Your task to perform on an android device: See recent photos Image 0: 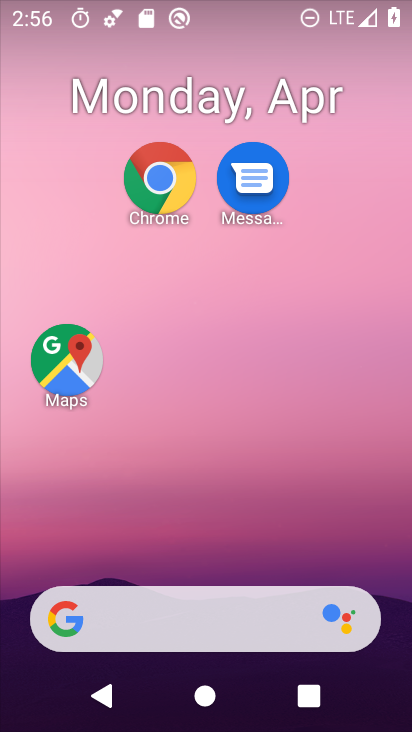
Step 0: drag from (313, 501) to (321, 129)
Your task to perform on an android device: See recent photos Image 1: 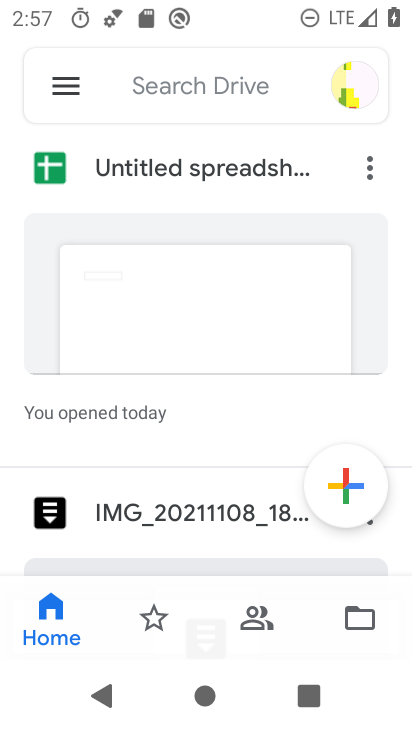
Step 1: press home button
Your task to perform on an android device: See recent photos Image 2: 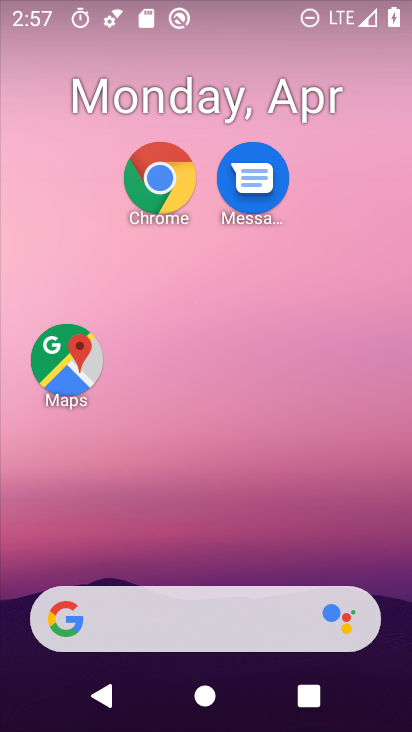
Step 2: drag from (242, 585) to (242, 25)
Your task to perform on an android device: See recent photos Image 3: 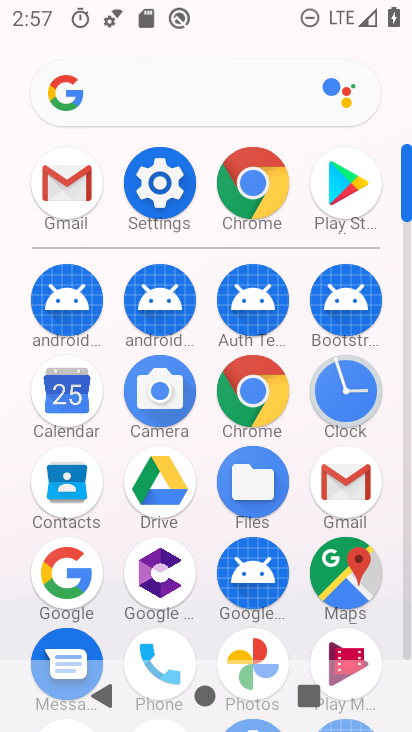
Step 3: drag from (298, 630) to (293, 212)
Your task to perform on an android device: See recent photos Image 4: 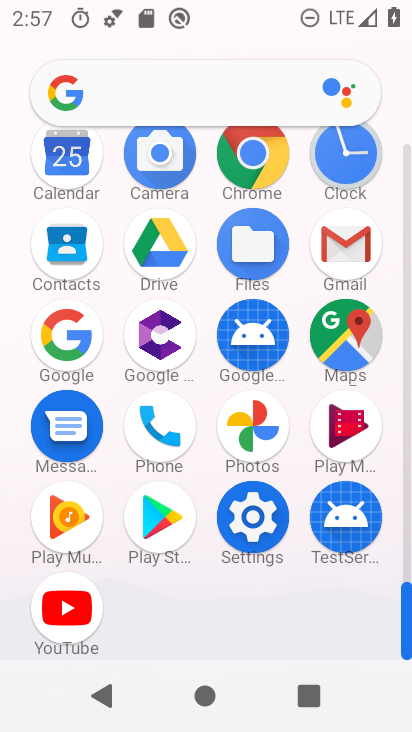
Step 4: click (261, 444)
Your task to perform on an android device: See recent photos Image 5: 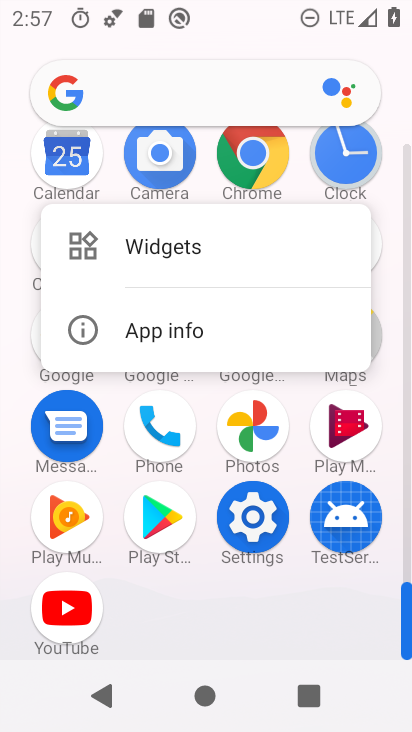
Step 5: click (261, 444)
Your task to perform on an android device: See recent photos Image 6: 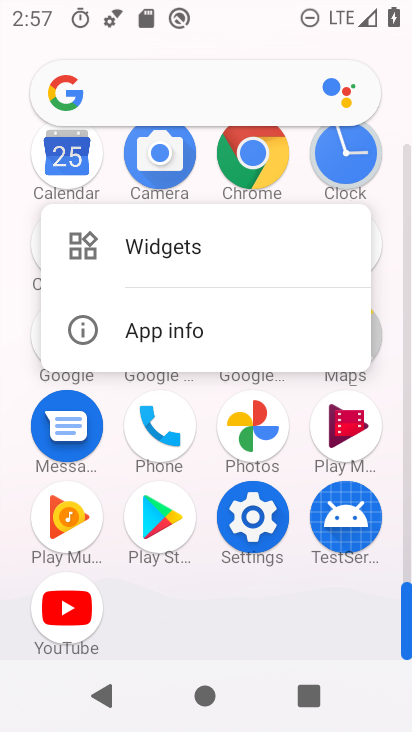
Step 6: click (242, 422)
Your task to perform on an android device: See recent photos Image 7: 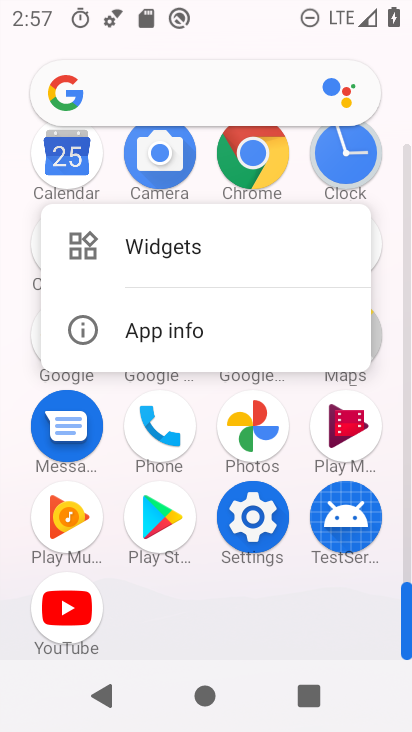
Step 7: click (242, 422)
Your task to perform on an android device: See recent photos Image 8: 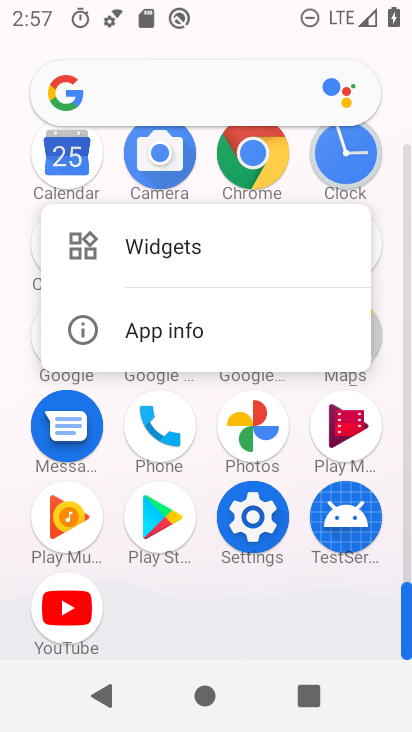
Step 8: click (247, 422)
Your task to perform on an android device: See recent photos Image 9: 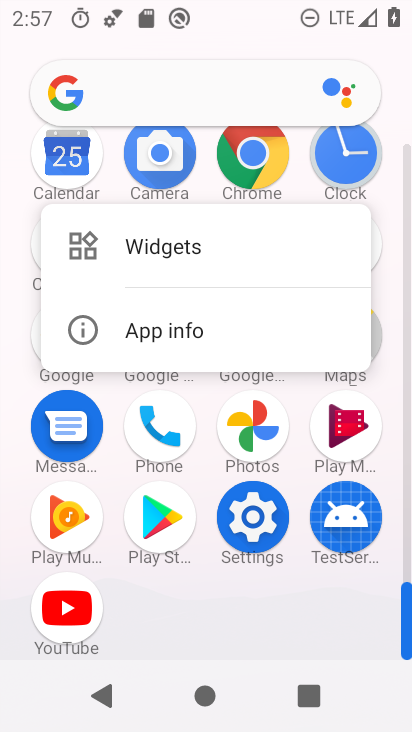
Step 9: click (258, 414)
Your task to perform on an android device: See recent photos Image 10: 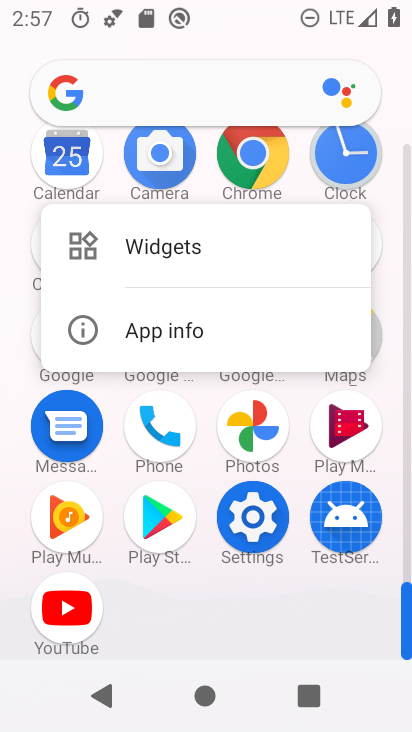
Step 10: click (257, 421)
Your task to perform on an android device: See recent photos Image 11: 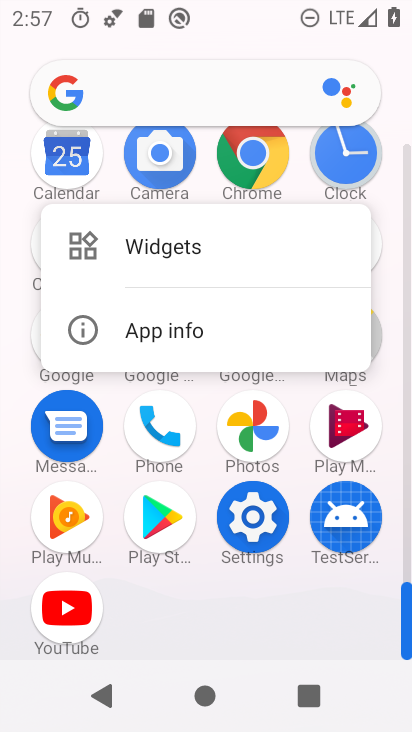
Step 11: click (260, 421)
Your task to perform on an android device: See recent photos Image 12: 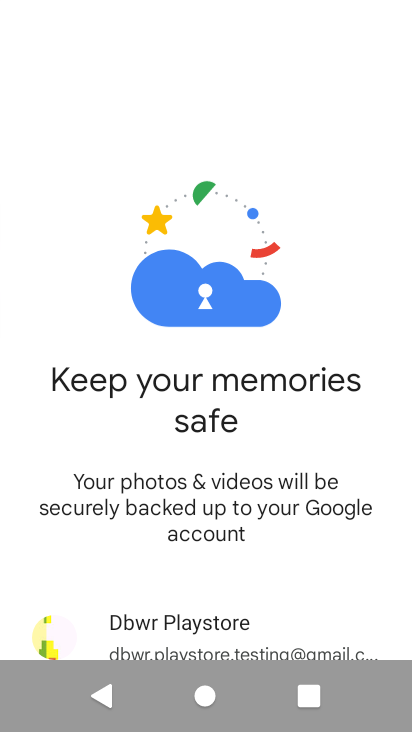
Step 12: drag from (216, 636) to (223, 163)
Your task to perform on an android device: See recent photos Image 13: 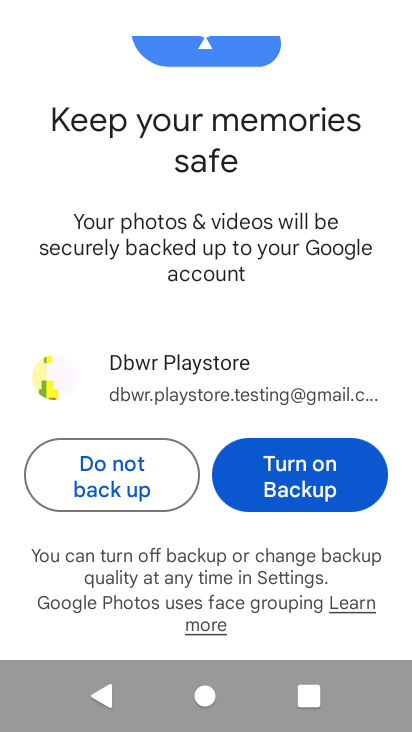
Step 13: click (107, 491)
Your task to perform on an android device: See recent photos Image 14: 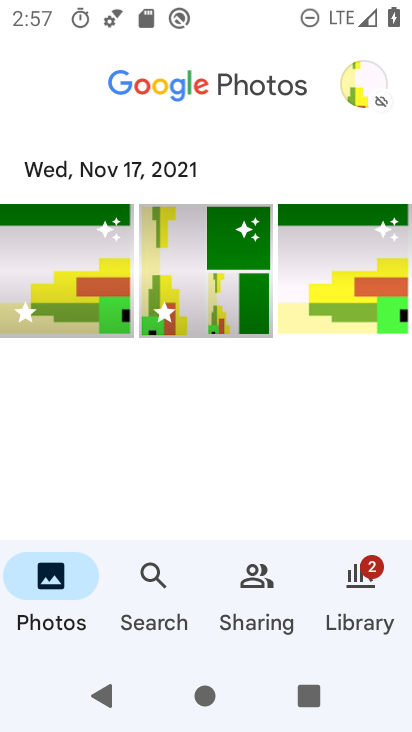
Step 14: click (118, 252)
Your task to perform on an android device: See recent photos Image 15: 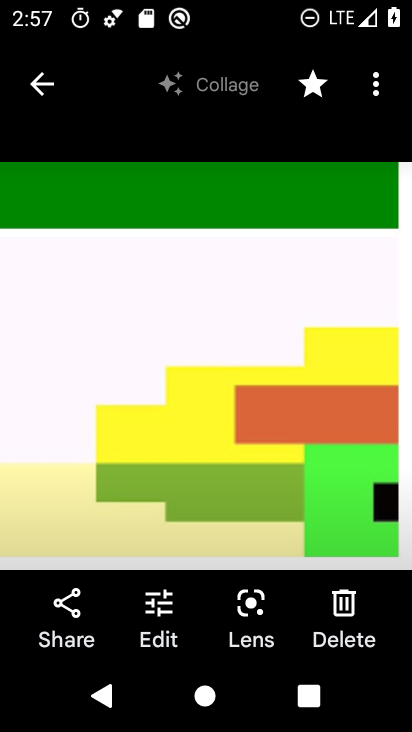
Step 15: task complete